Your task to perform on an android device: Open the Play Movies app and select the watchlist tab. Image 0: 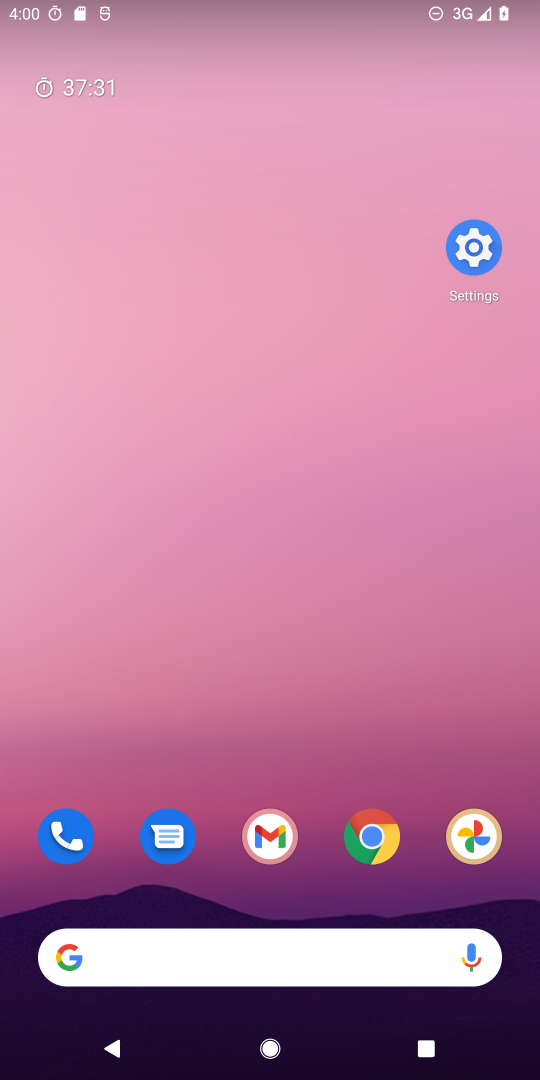
Step 0: drag from (268, 275) to (274, 11)
Your task to perform on an android device: Open the Play Movies app and select the watchlist tab. Image 1: 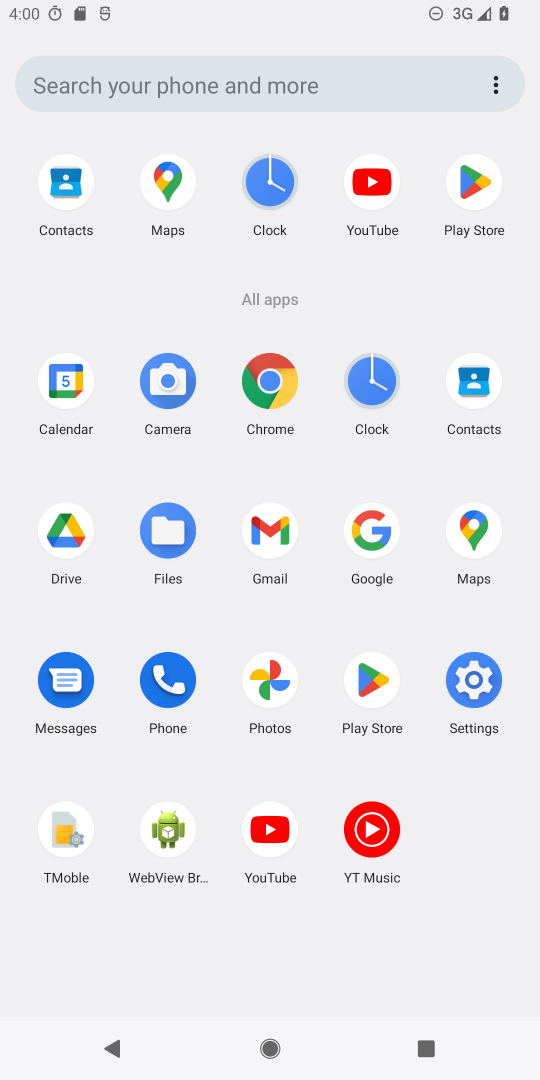
Step 1: task complete